Your task to perform on an android device: turn off smart reply in the gmail app Image 0: 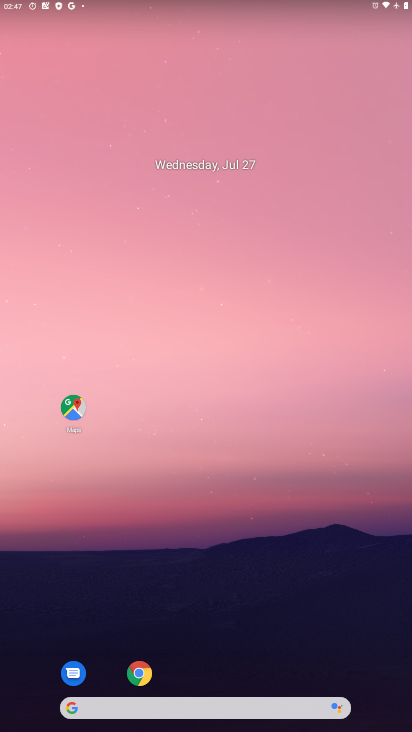
Step 0: drag from (250, 651) to (271, 3)
Your task to perform on an android device: turn off smart reply in the gmail app Image 1: 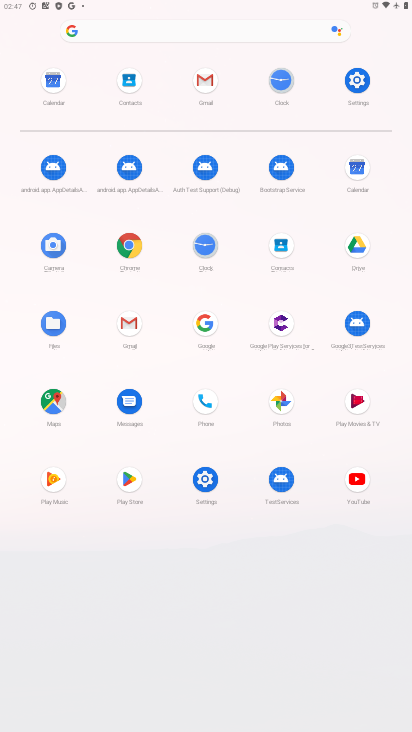
Step 1: click (205, 83)
Your task to perform on an android device: turn off smart reply in the gmail app Image 2: 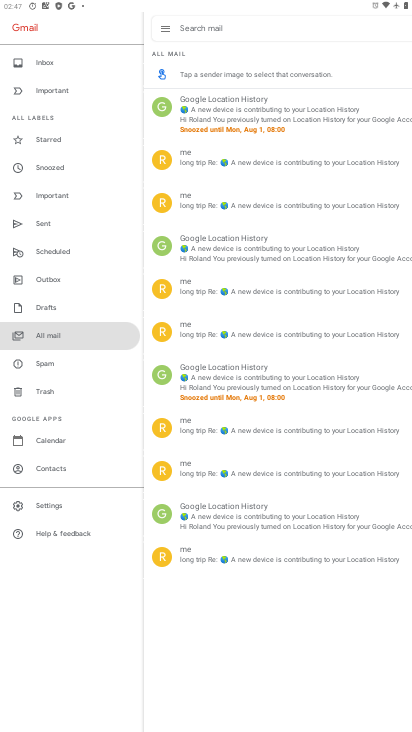
Step 2: click (50, 505)
Your task to perform on an android device: turn off smart reply in the gmail app Image 3: 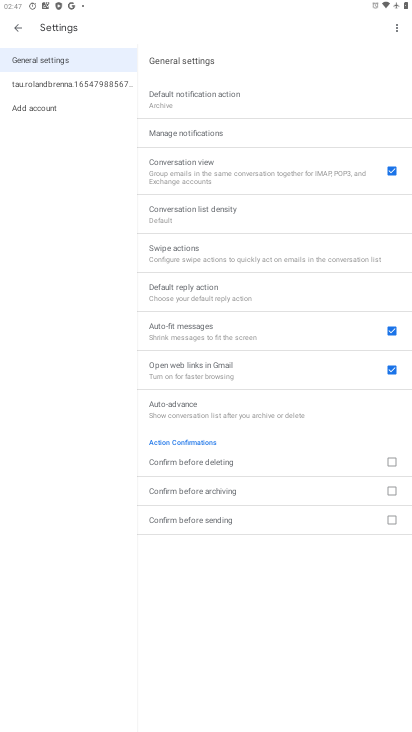
Step 3: click (70, 87)
Your task to perform on an android device: turn off smart reply in the gmail app Image 4: 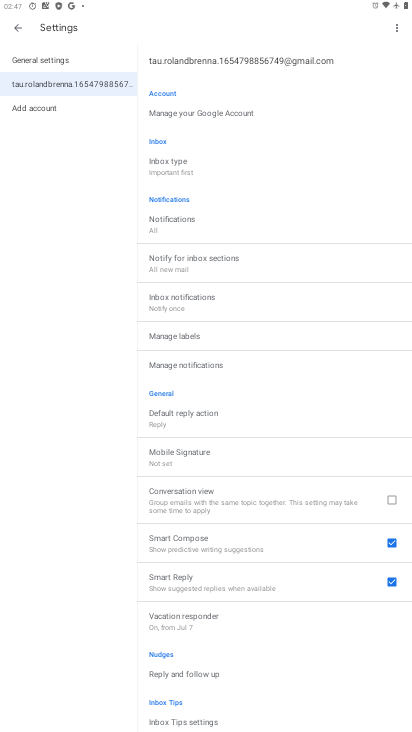
Step 4: click (390, 587)
Your task to perform on an android device: turn off smart reply in the gmail app Image 5: 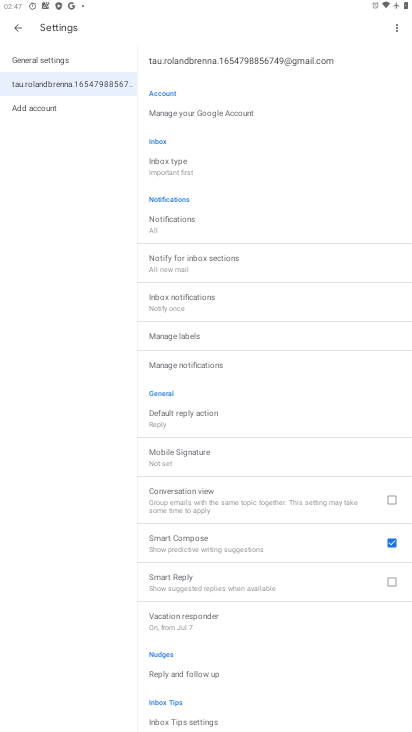
Step 5: task complete